Your task to perform on an android device: Show me recent news Image 0: 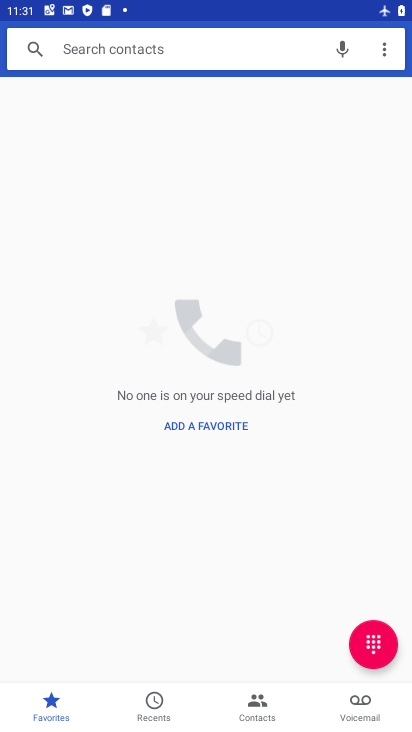
Step 0: press home button
Your task to perform on an android device: Show me recent news Image 1: 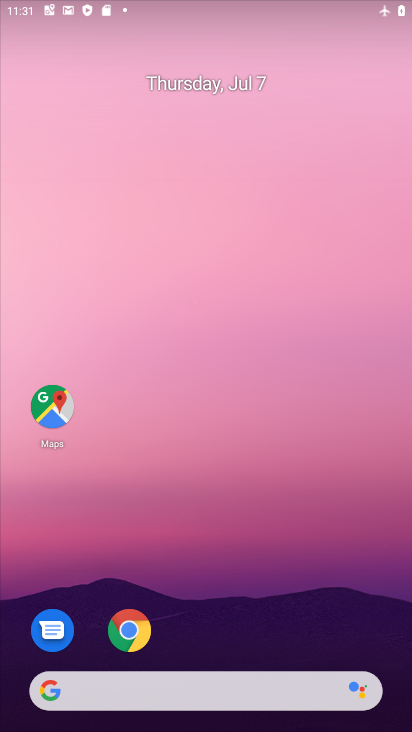
Step 1: drag from (209, 636) to (197, 202)
Your task to perform on an android device: Show me recent news Image 2: 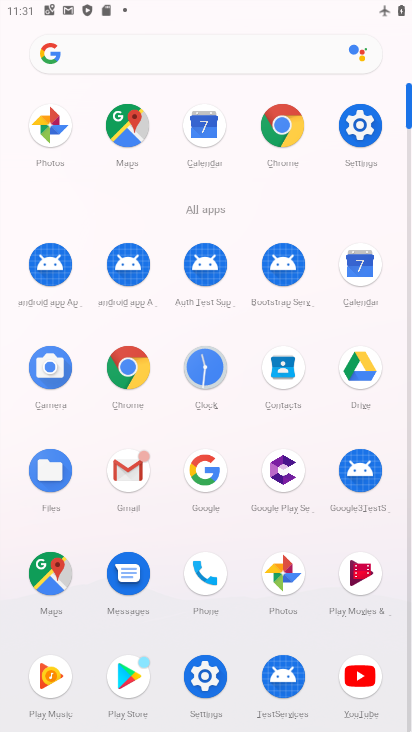
Step 2: click (206, 483)
Your task to perform on an android device: Show me recent news Image 3: 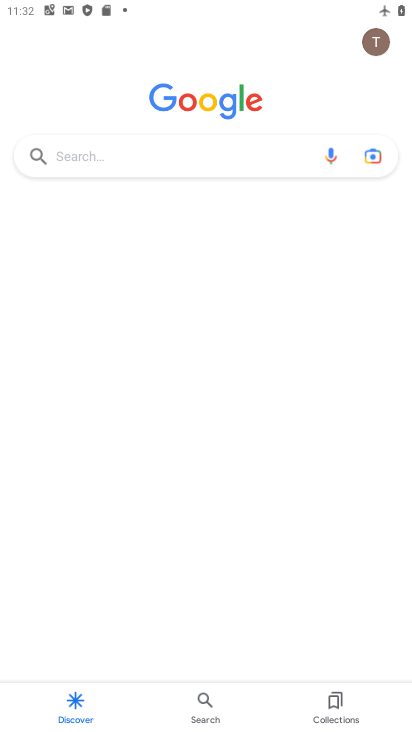
Step 3: click (164, 161)
Your task to perform on an android device: Show me recent news Image 4: 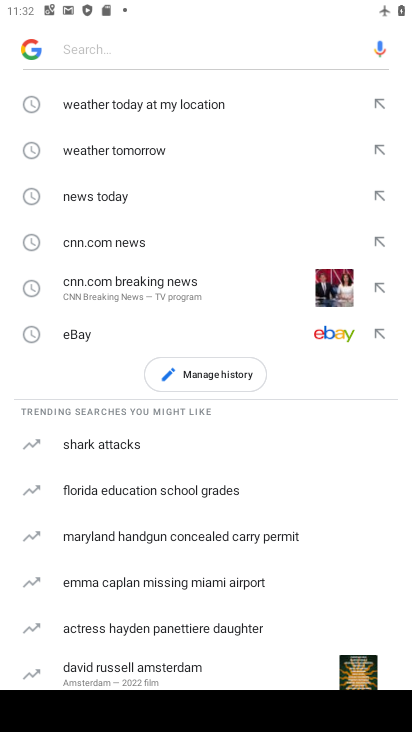
Step 4: type "recent news"
Your task to perform on an android device: Show me recent news Image 5: 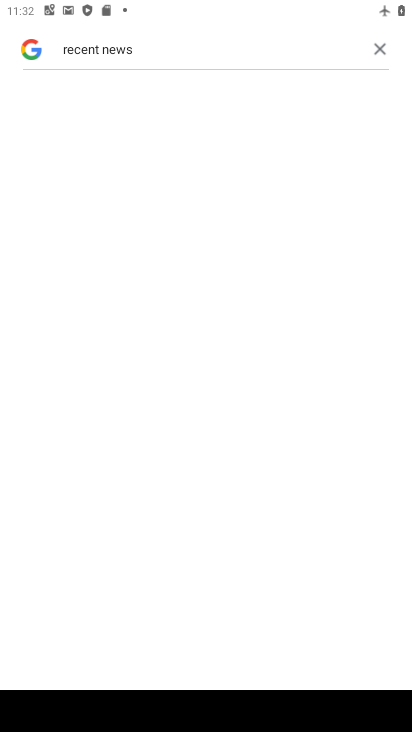
Step 5: task complete